Your task to perform on an android device: turn off translation in the chrome app Image 0: 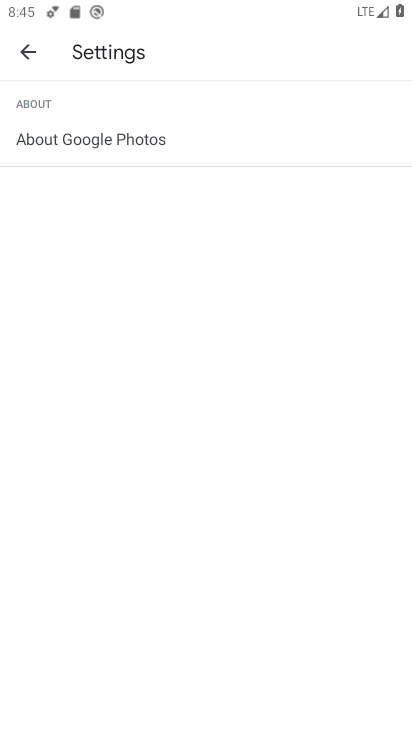
Step 0: press home button
Your task to perform on an android device: turn off translation in the chrome app Image 1: 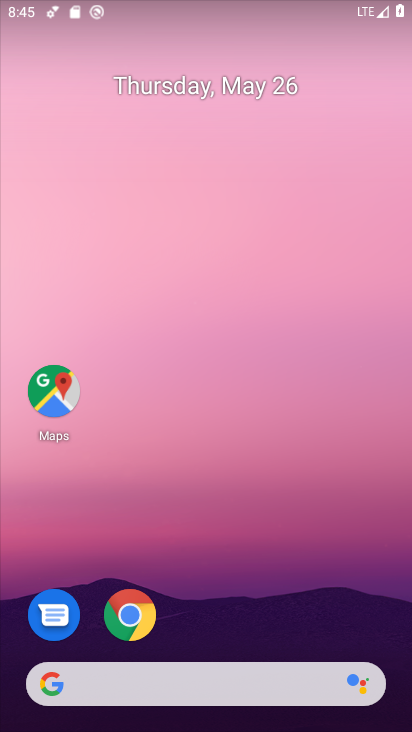
Step 1: drag from (276, 614) to (290, 327)
Your task to perform on an android device: turn off translation in the chrome app Image 2: 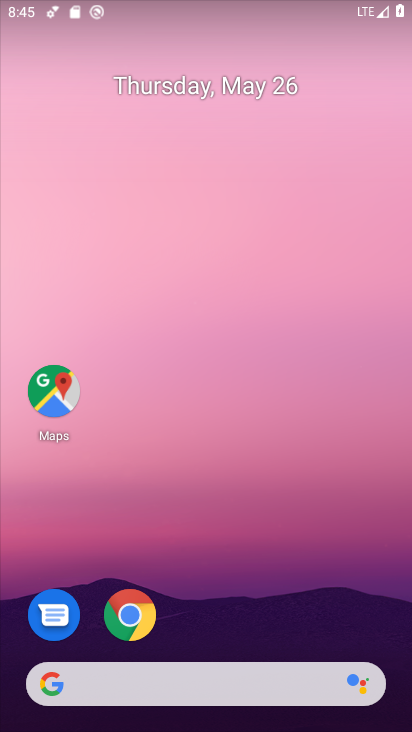
Step 2: drag from (217, 570) to (242, 243)
Your task to perform on an android device: turn off translation in the chrome app Image 3: 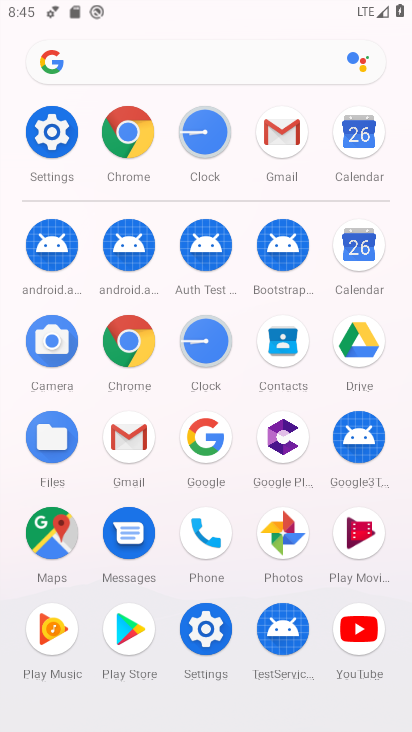
Step 3: click (128, 128)
Your task to perform on an android device: turn off translation in the chrome app Image 4: 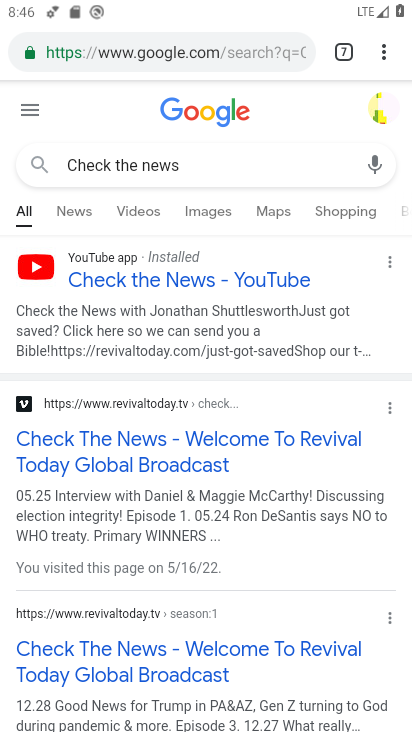
Step 4: click (381, 50)
Your task to perform on an android device: turn off translation in the chrome app Image 5: 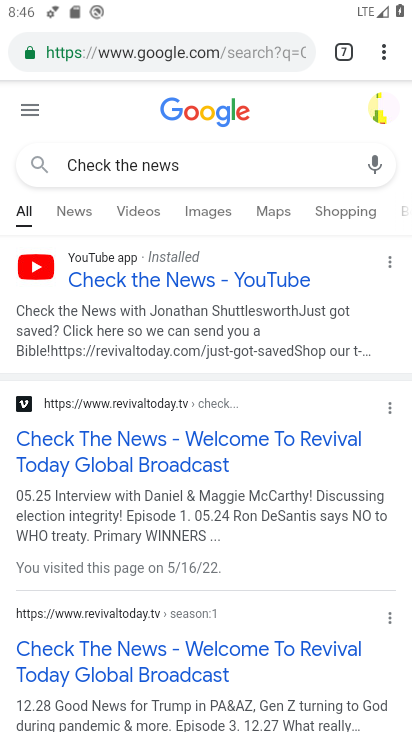
Step 5: click (382, 61)
Your task to perform on an android device: turn off translation in the chrome app Image 6: 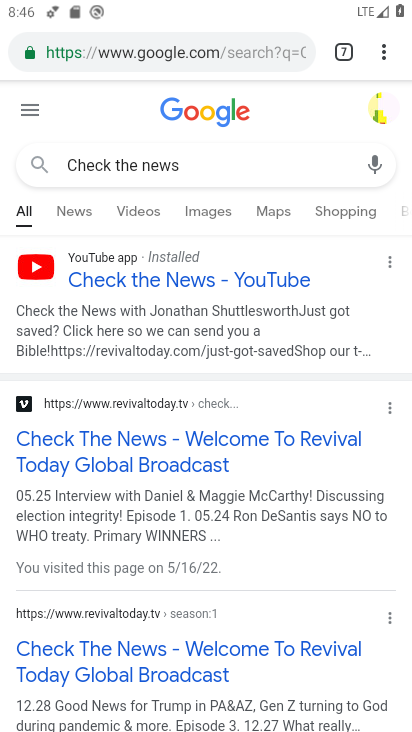
Step 6: click (389, 38)
Your task to perform on an android device: turn off translation in the chrome app Image 7: 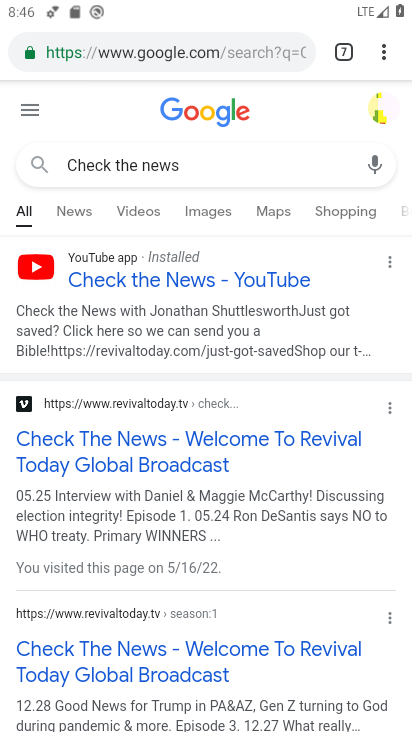
Step 7: click (385, 45)
Your task to perform on an android device: turn off translation in the chrome app Image 8: 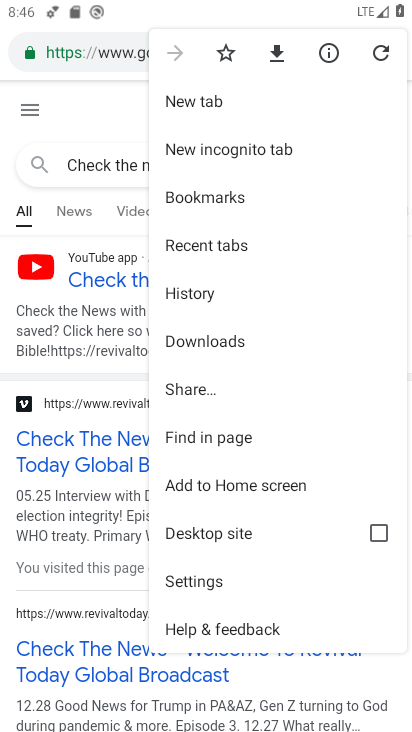
Step 8: click (219, 574)
Your task to perform on an android device: turn off translation in the chrome app Image 9: 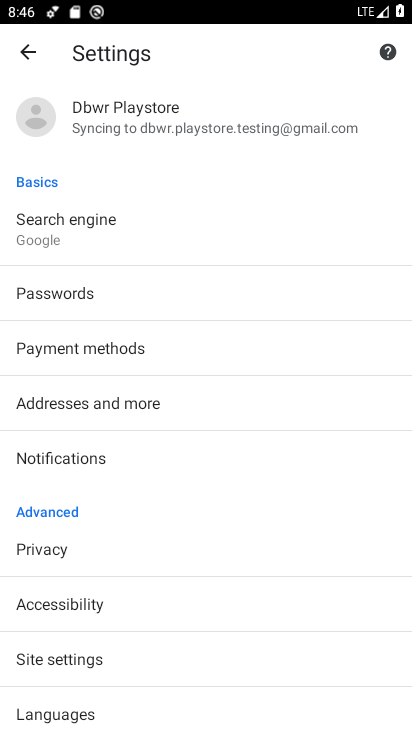
Step 9: drag from (201, 588) to (260, 229)
Your task to perform on an android device: turn off translation in the chrome app Image 10: 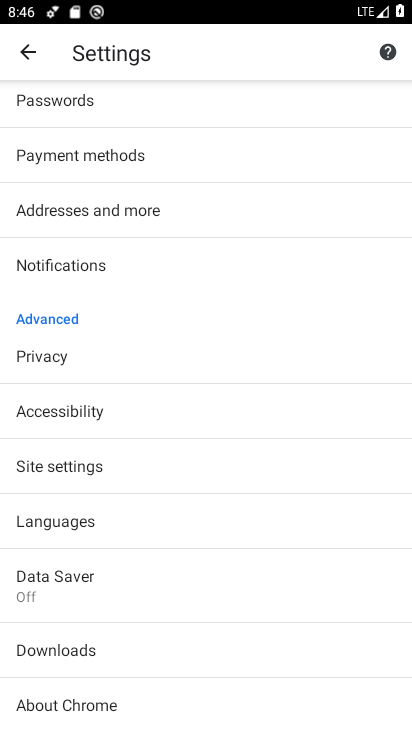
Step 10: drag from (149, 610) to (202, 314)
Your task to perform on an android device: turn off translation in the chrome app Image 11: 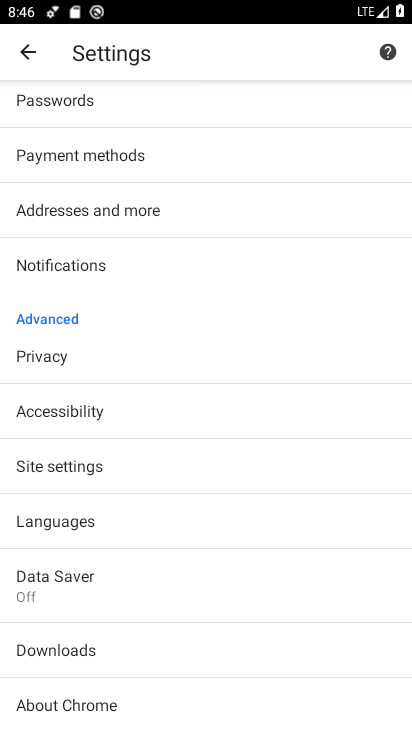
Step 11: click (103, 517)
Your task to perform on an android device: turn off translation in the chrome app Image 12: 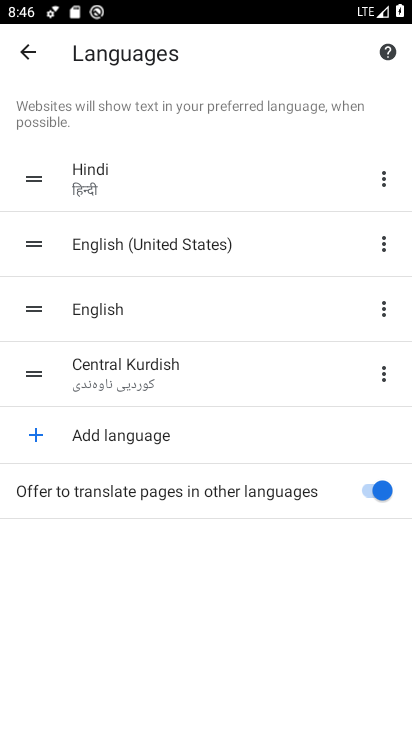
Step 12: click (364, 488)
Your task to perform on an android device: turn off translation in the chrome app Image 13: 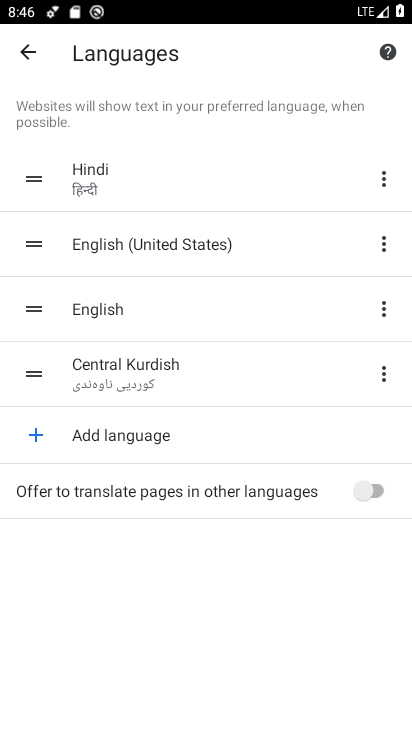
Step 13: task complete